Your task to perform on an android device: change the clock display to show seconds Image 0: 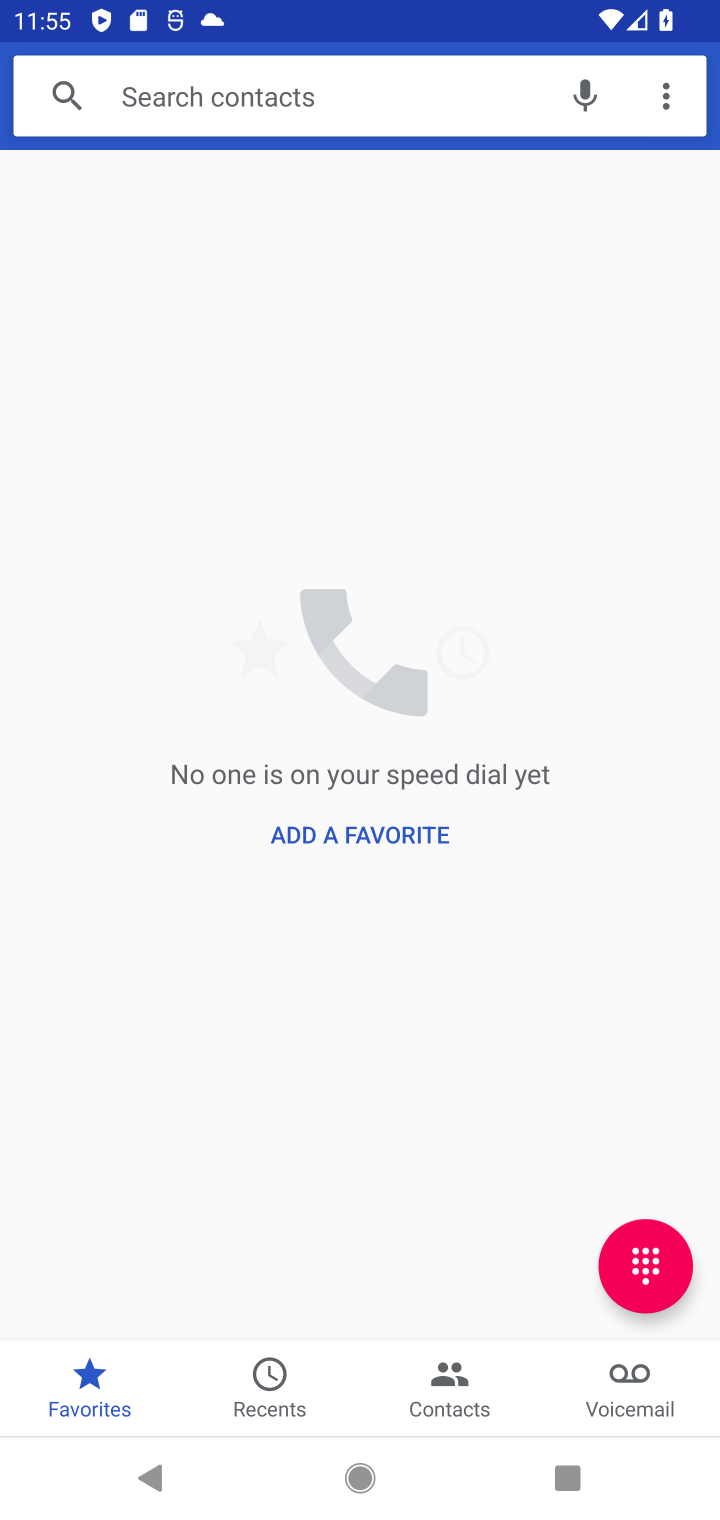
Step 0: press home button
Your task to perform on an android device: change the clock display to show seconds Image 1: 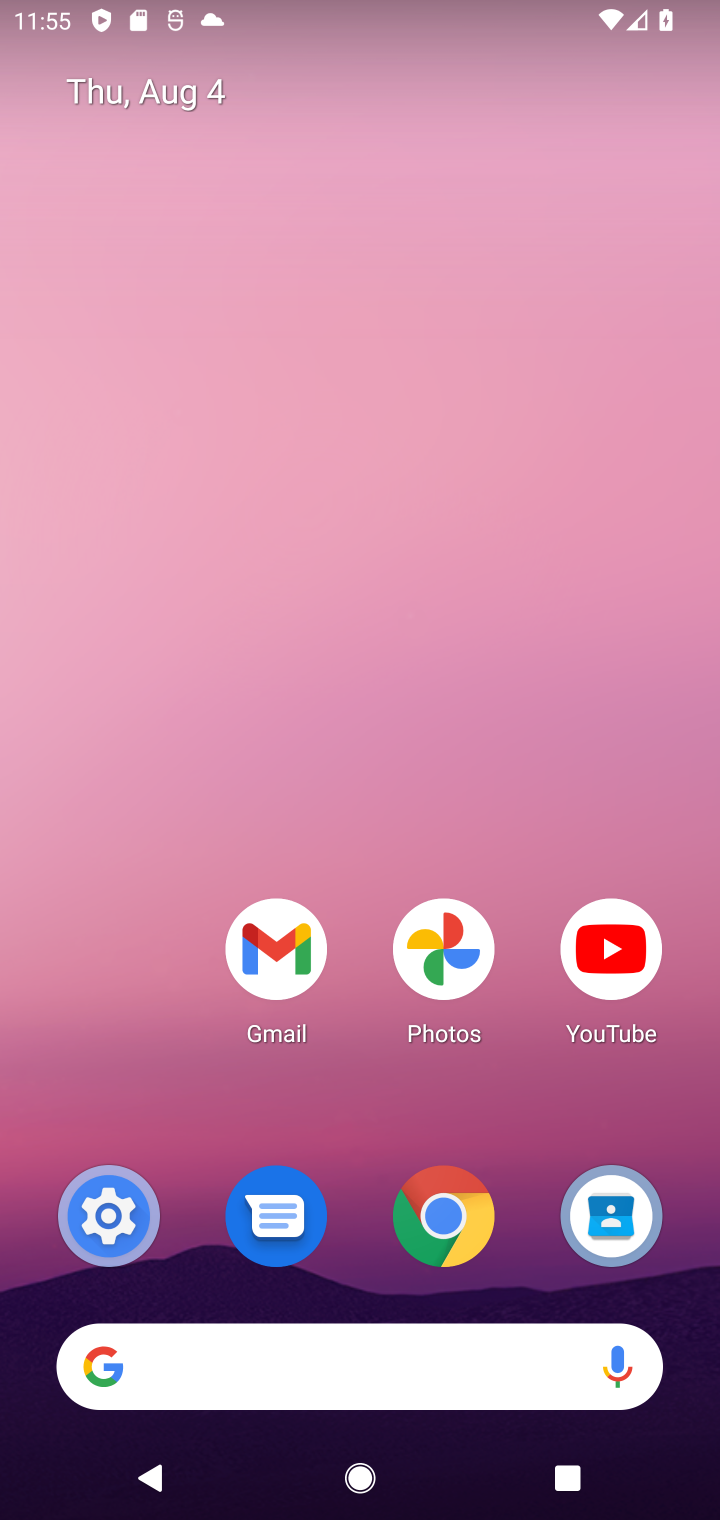
Step 1: drag from (245, 1369) to (170, 111)
Your task to perform on an android device: change the clock display to show seconds Image 2: 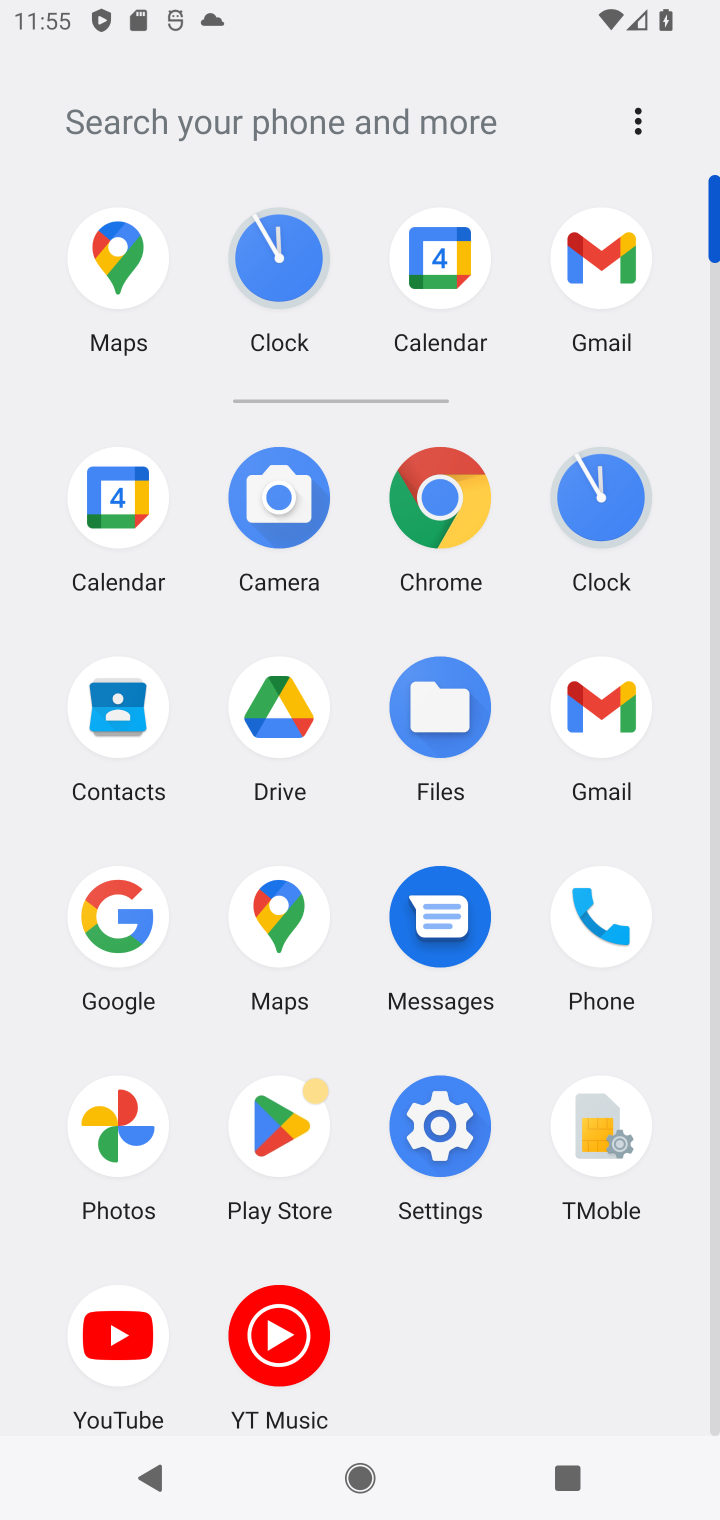
Step 2: click (596, 504)
Your task to perform on an android device: change the clock display to show seconds Image 3: 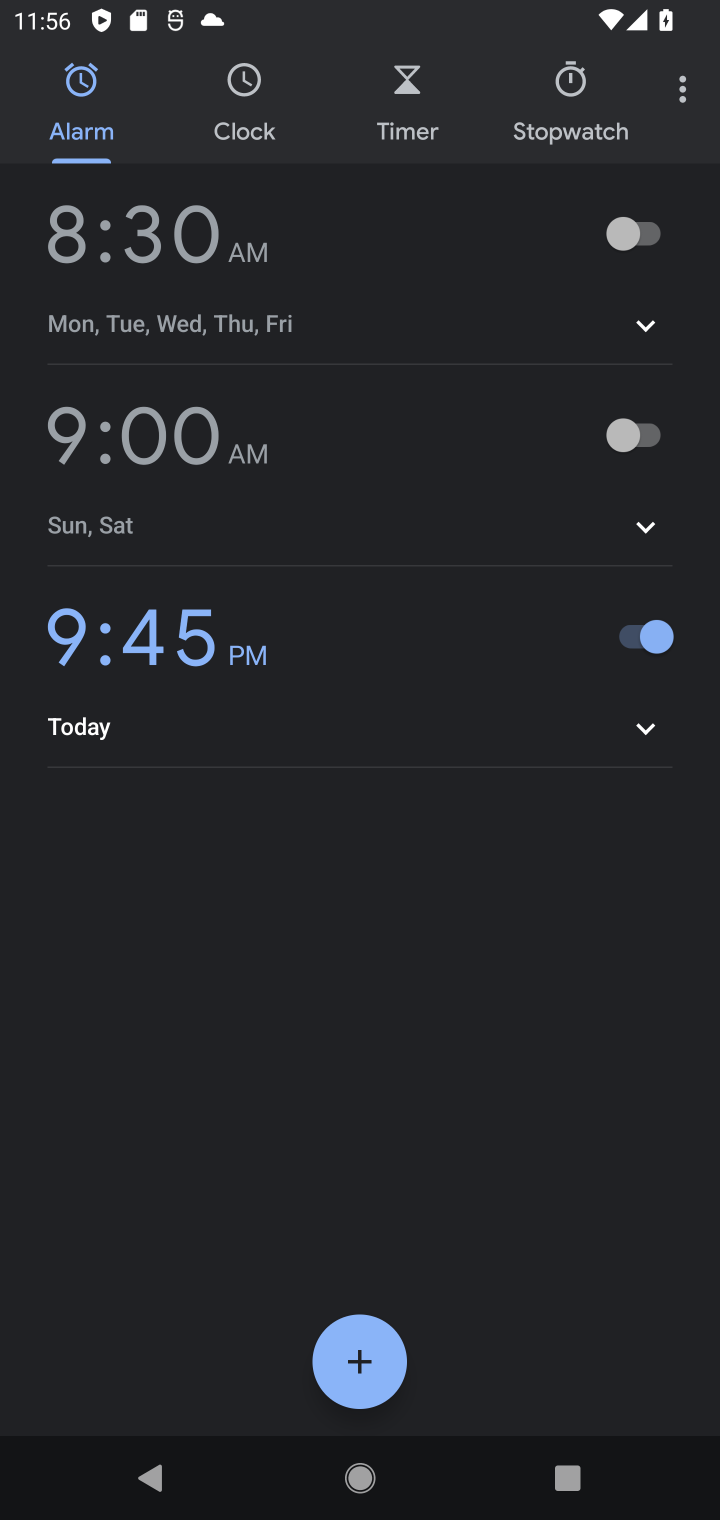
Step 3: click (684, 91)
Your task to perform on an android device: change the clock display to show seconds Image 4: 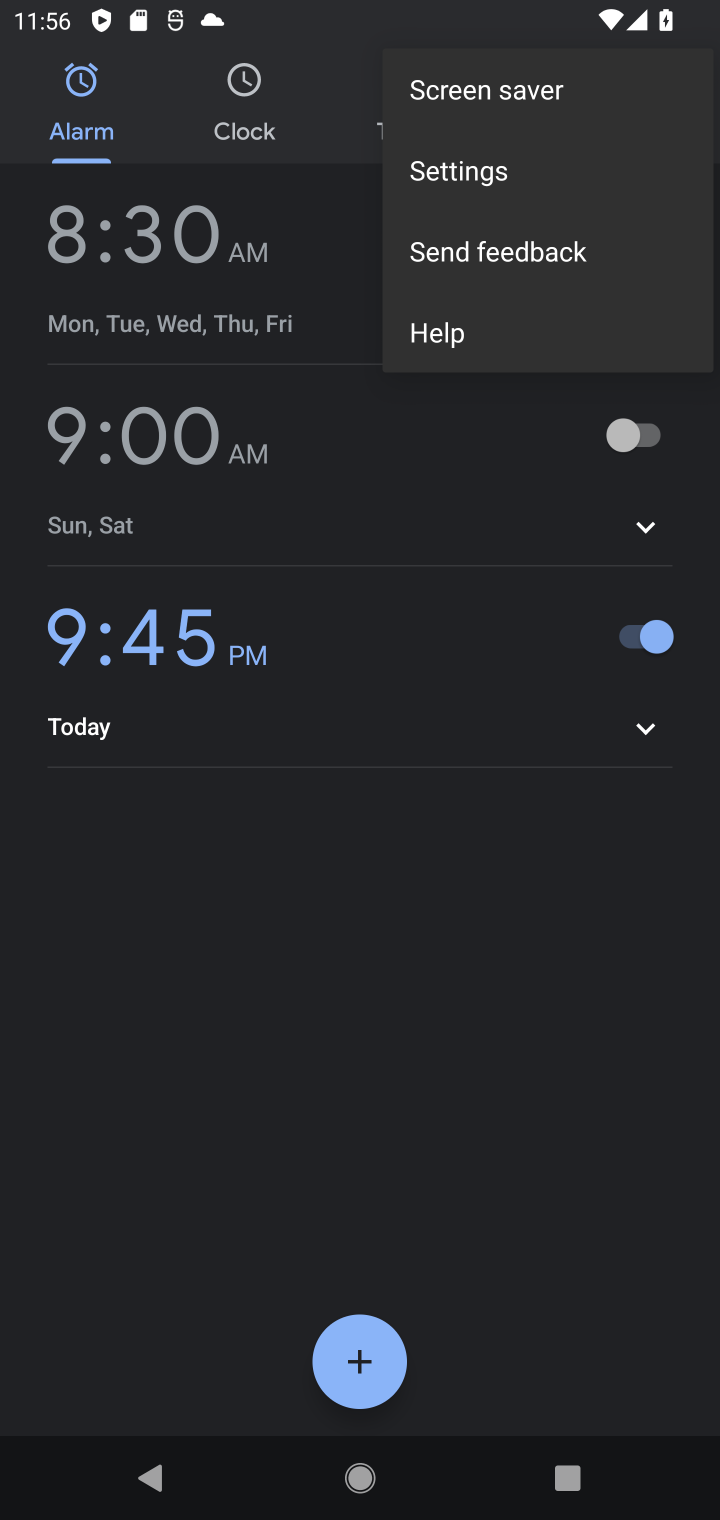
Step 4: click (496, 178)
Your task to perform on an android device: change the clock display to show seconds Image 5: 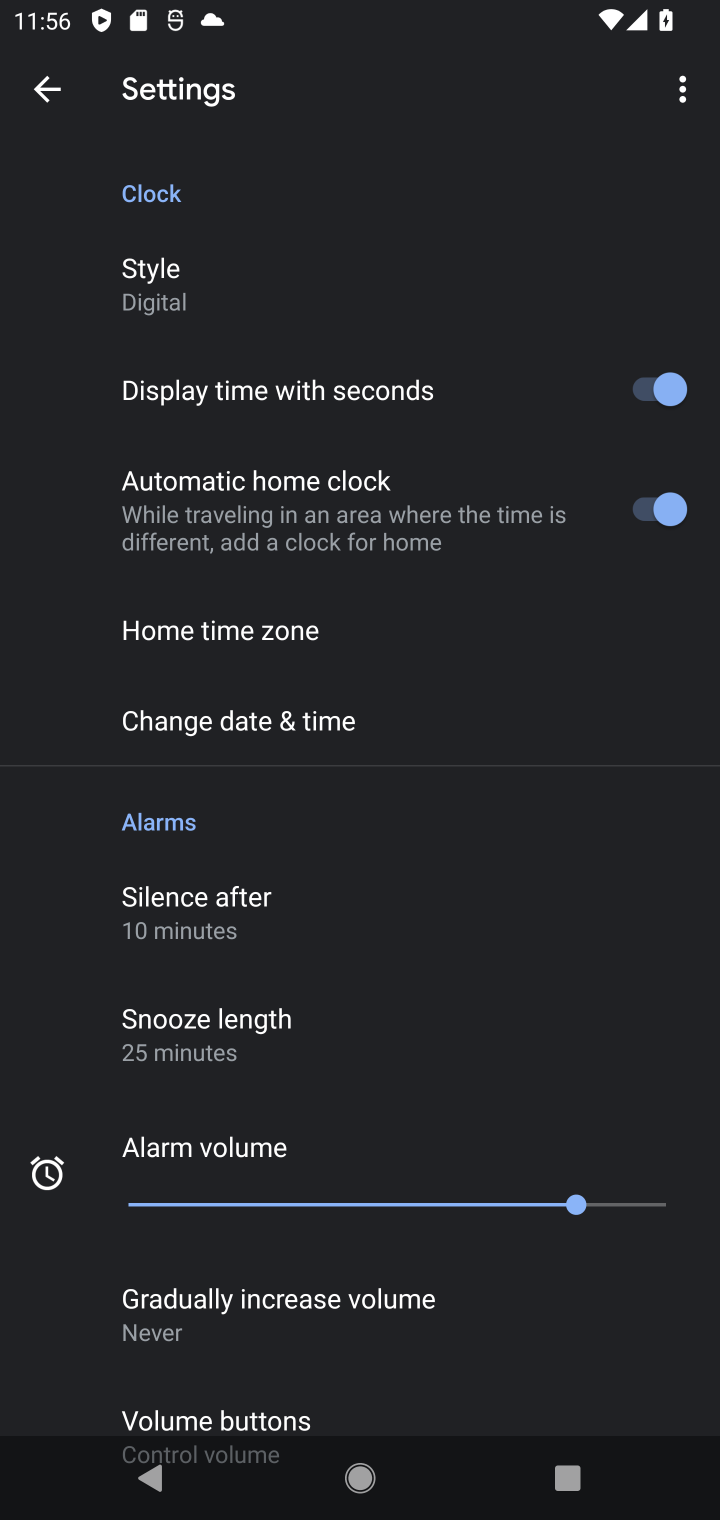
Step 5: click (668, 395)
Your task to perform on an android device: change the clock display to show seconds Image 6: 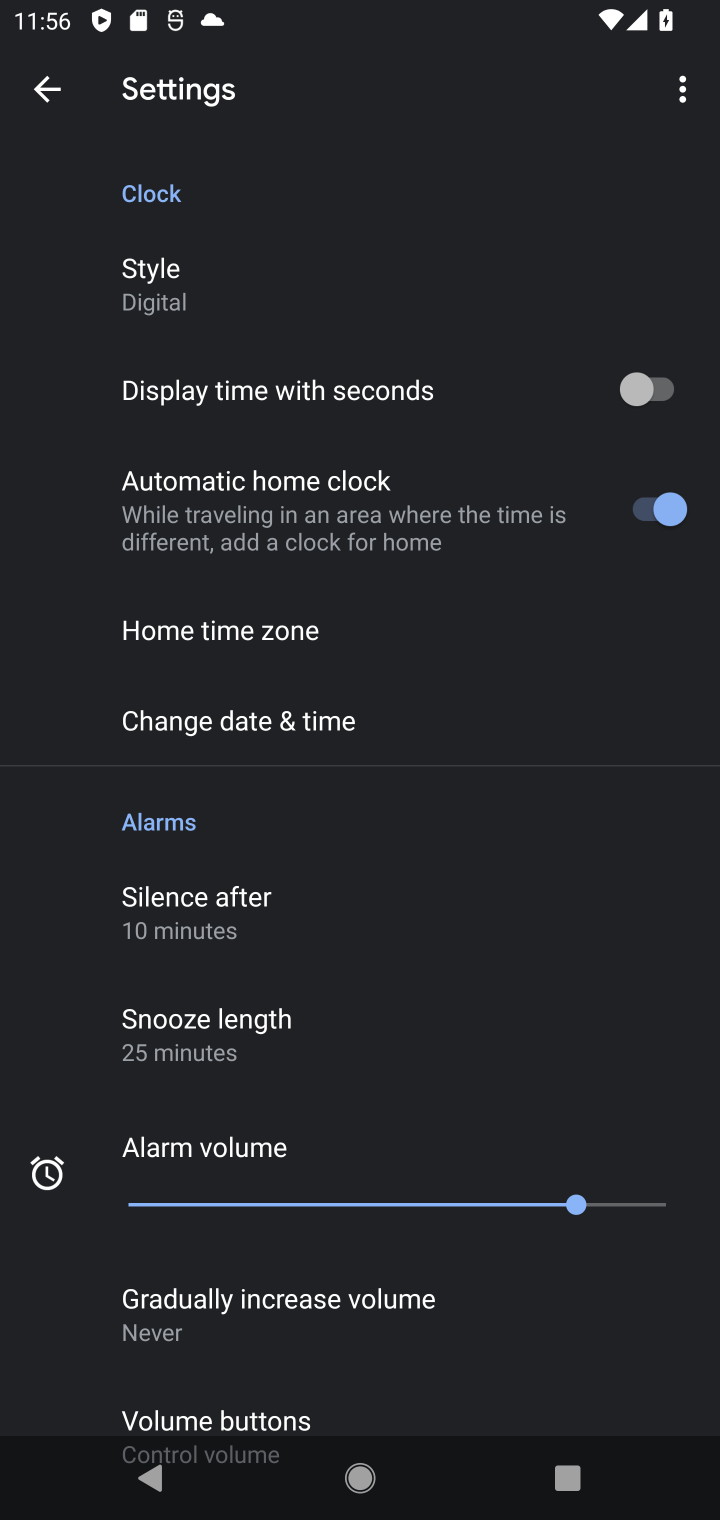
Step 6: task complete